Your task to perform on an android device: Add "razer thresher" to the cart on amazon.com Image 0: 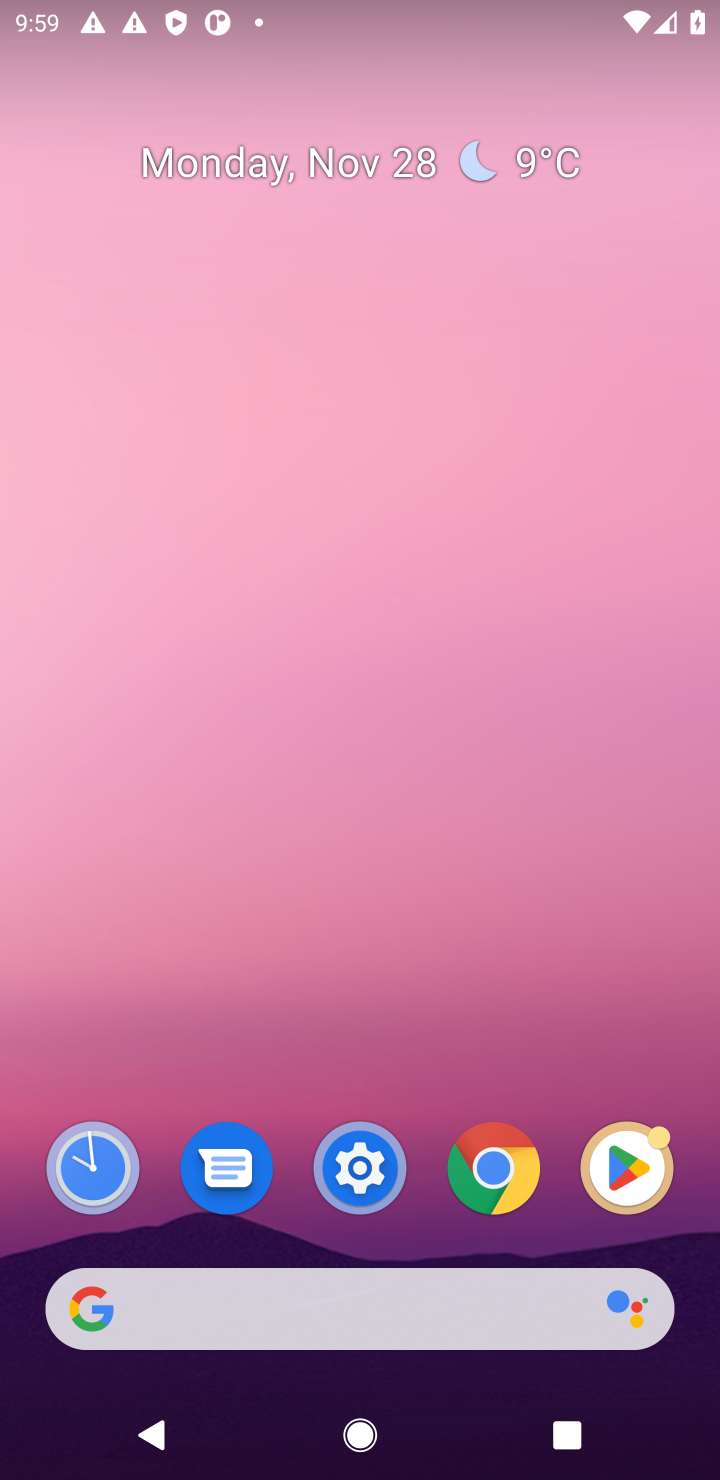
Step 0: click (515, 1285)
Your task to perform on an android device: Add "razer thresher" to the cart on amazon.com Image 1: 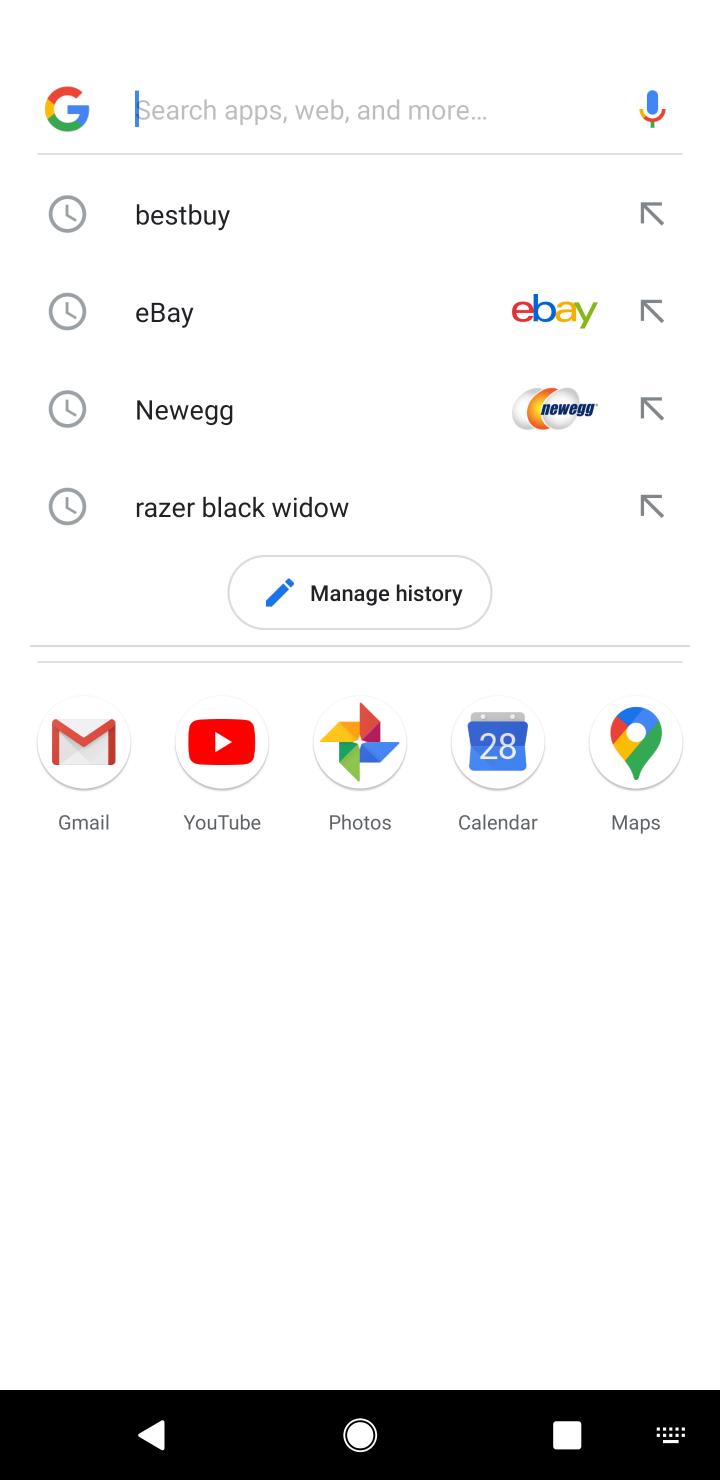
Step 1: type "amaazon.com"
Your task to perform on an android device: Add "razer thresher" to the cart on amazon.com Image 2: 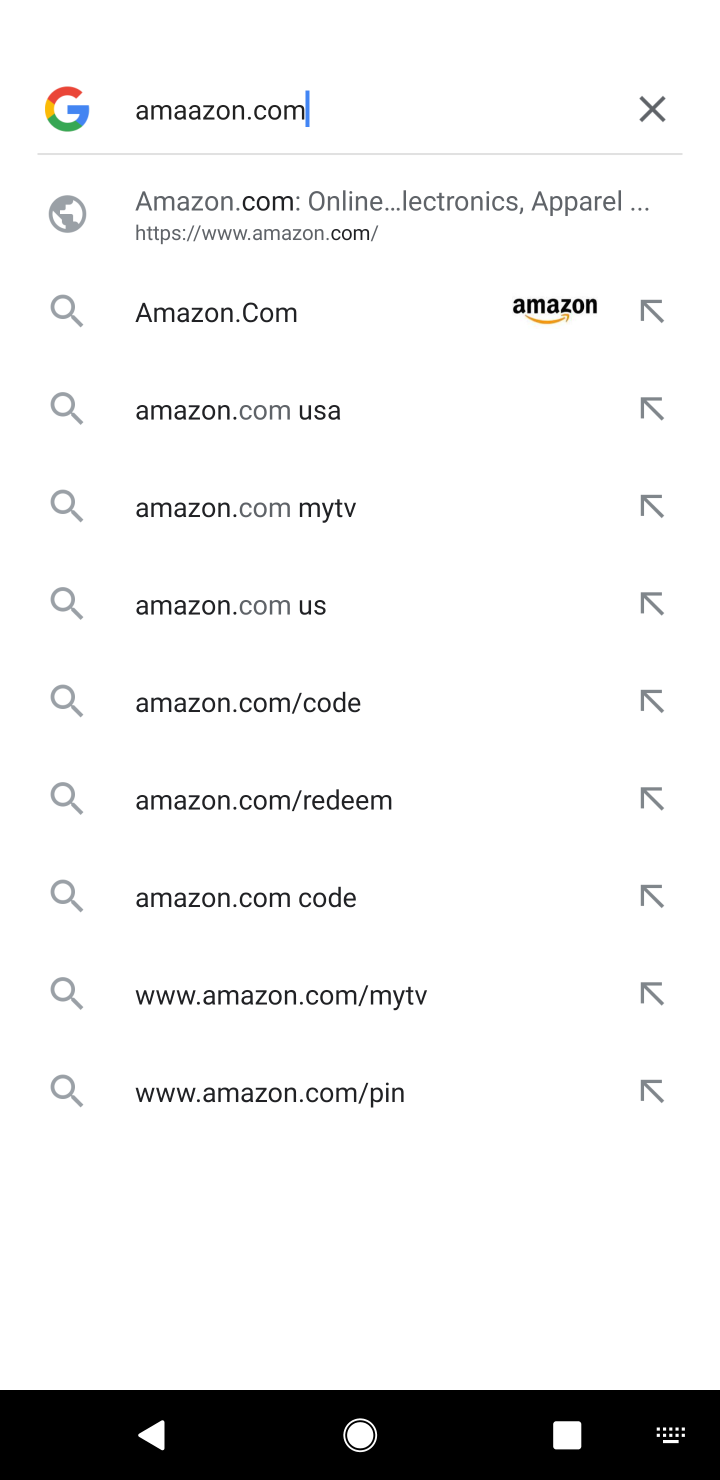
Step 2: click (330, 246)
Your task to perform on an android device: Add "razer thresher" to the cart on amazon.com Image 3: 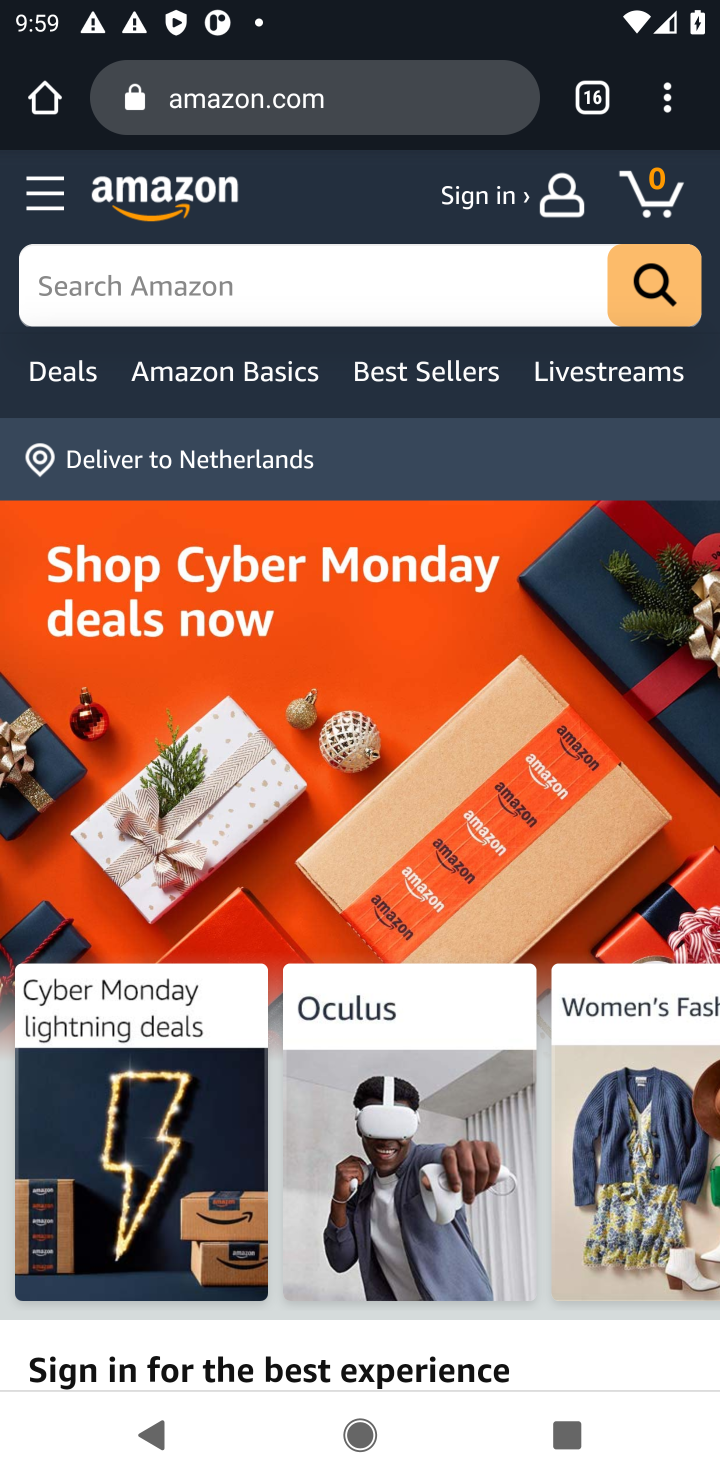
Step 3: click (353, 309)
Your task to perform on an android device: Add "razer thresher" to the cart on amazon.com Image 4: 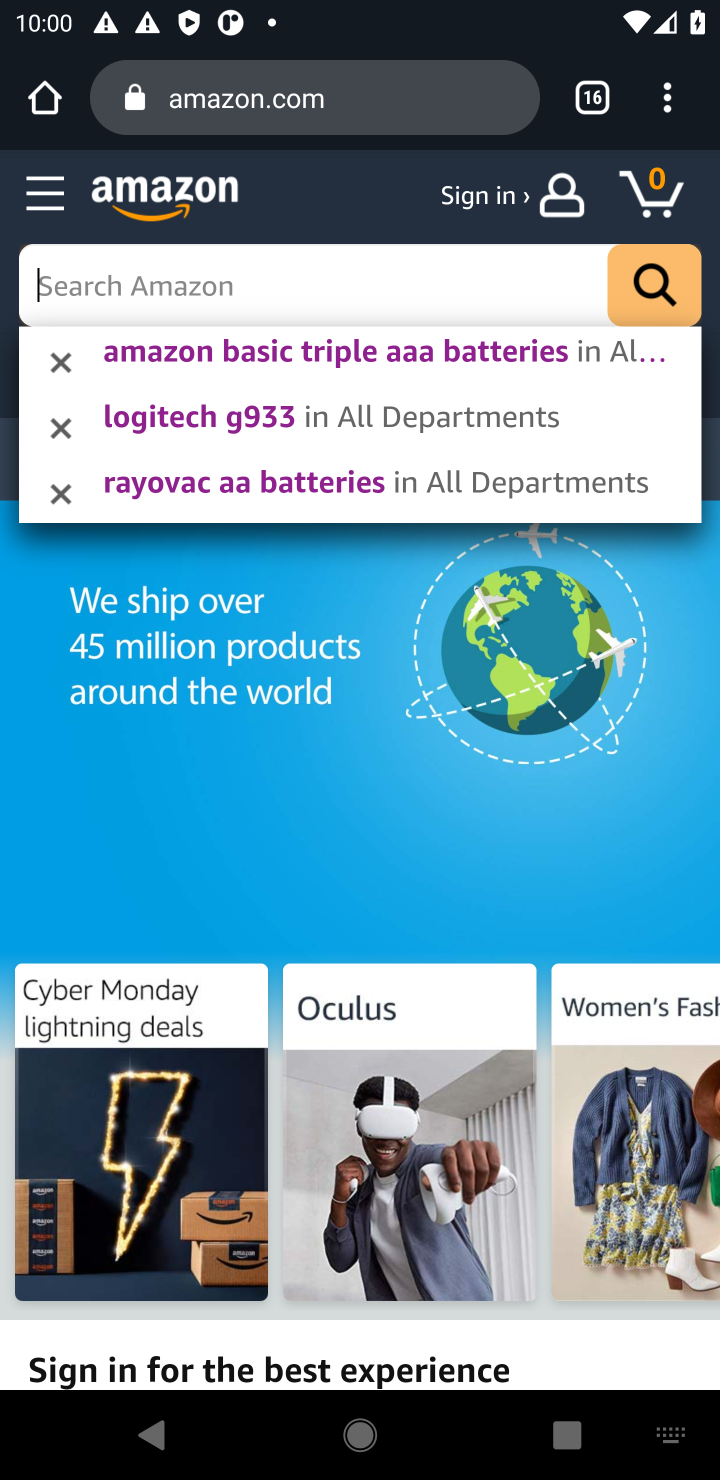
Step 4: type "razer thresher"
Your task to perform on an android device: Add "razer thresher" to the cart on amazon.com Image 5: 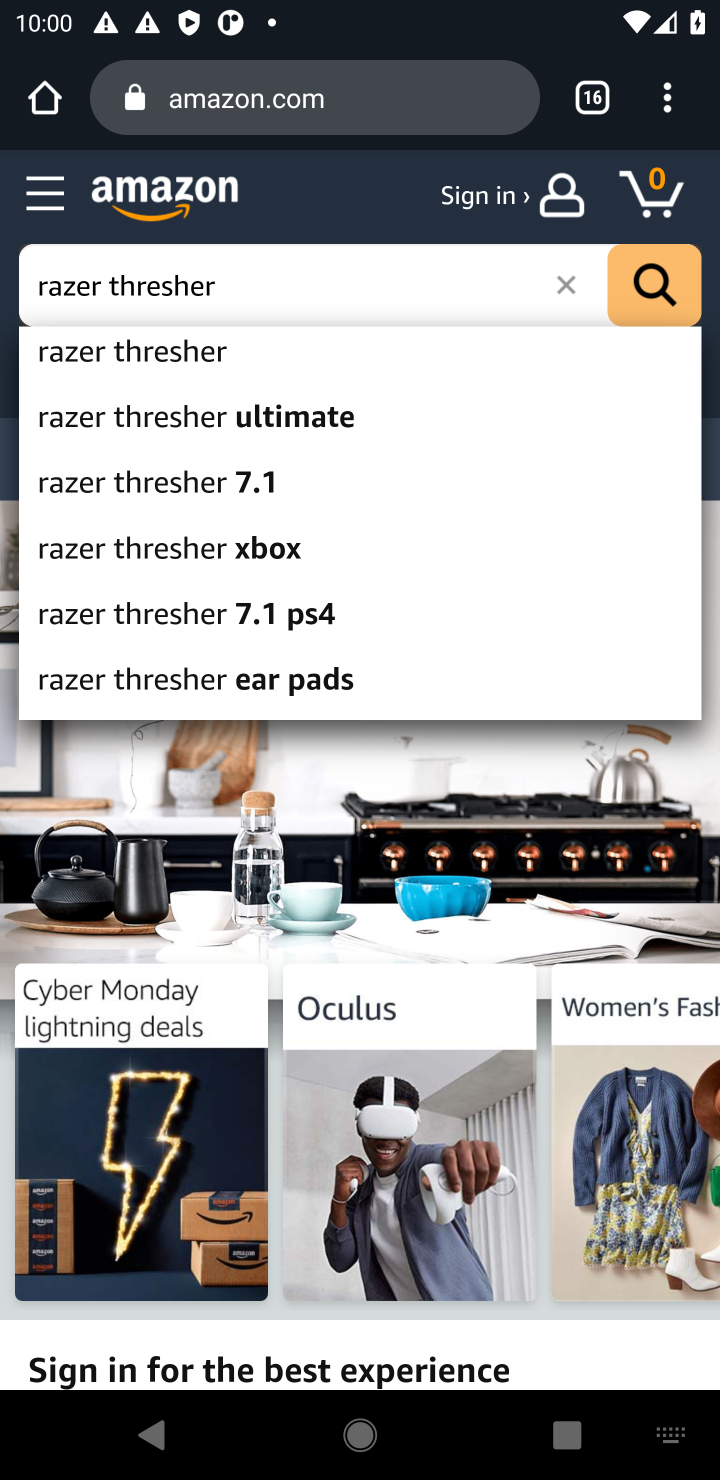
Step 5: click (240, 378)
Your task to perform on an android device: Add "razer thresher" to the cart on amazon.com Image 6: 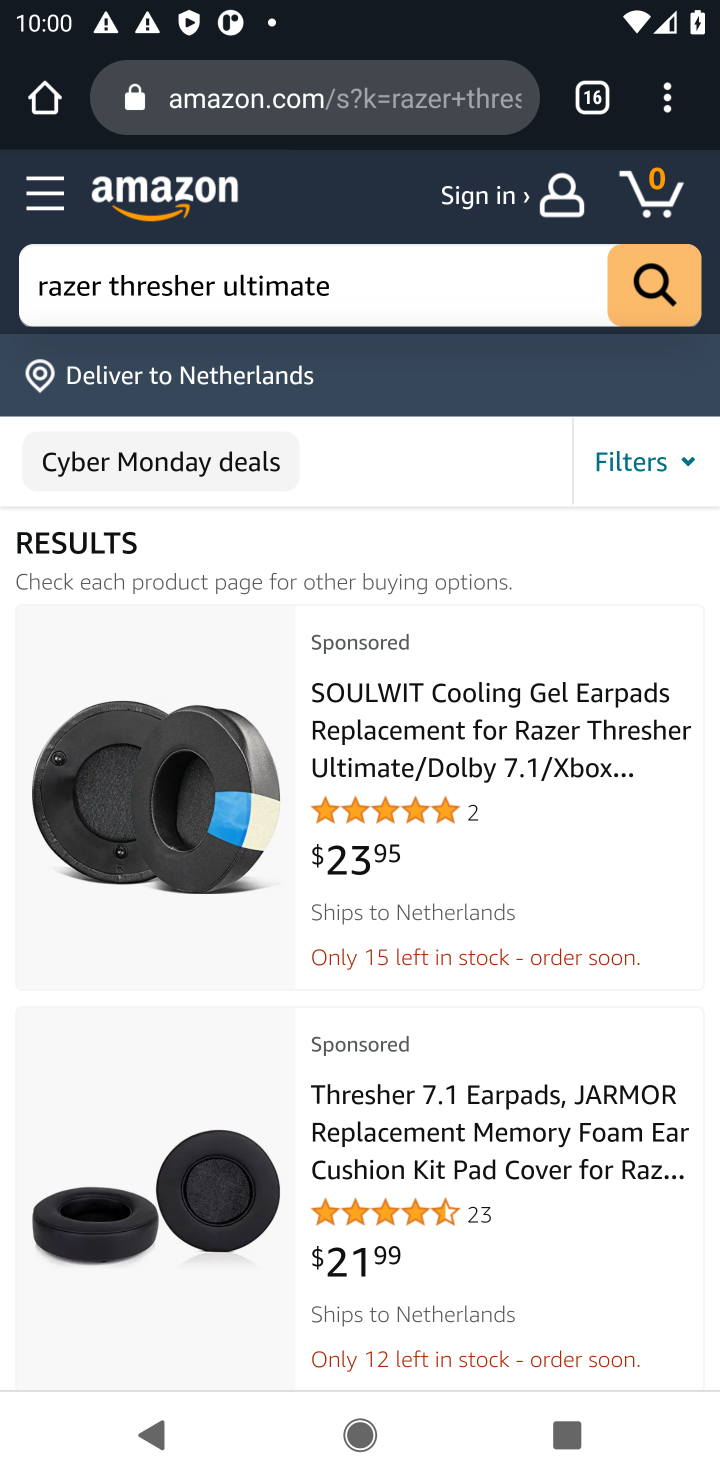
Step 6: click (382, 712)
Your task to perform on an android device: Add "razer thresher" to the cart on amazon.com Image 7: 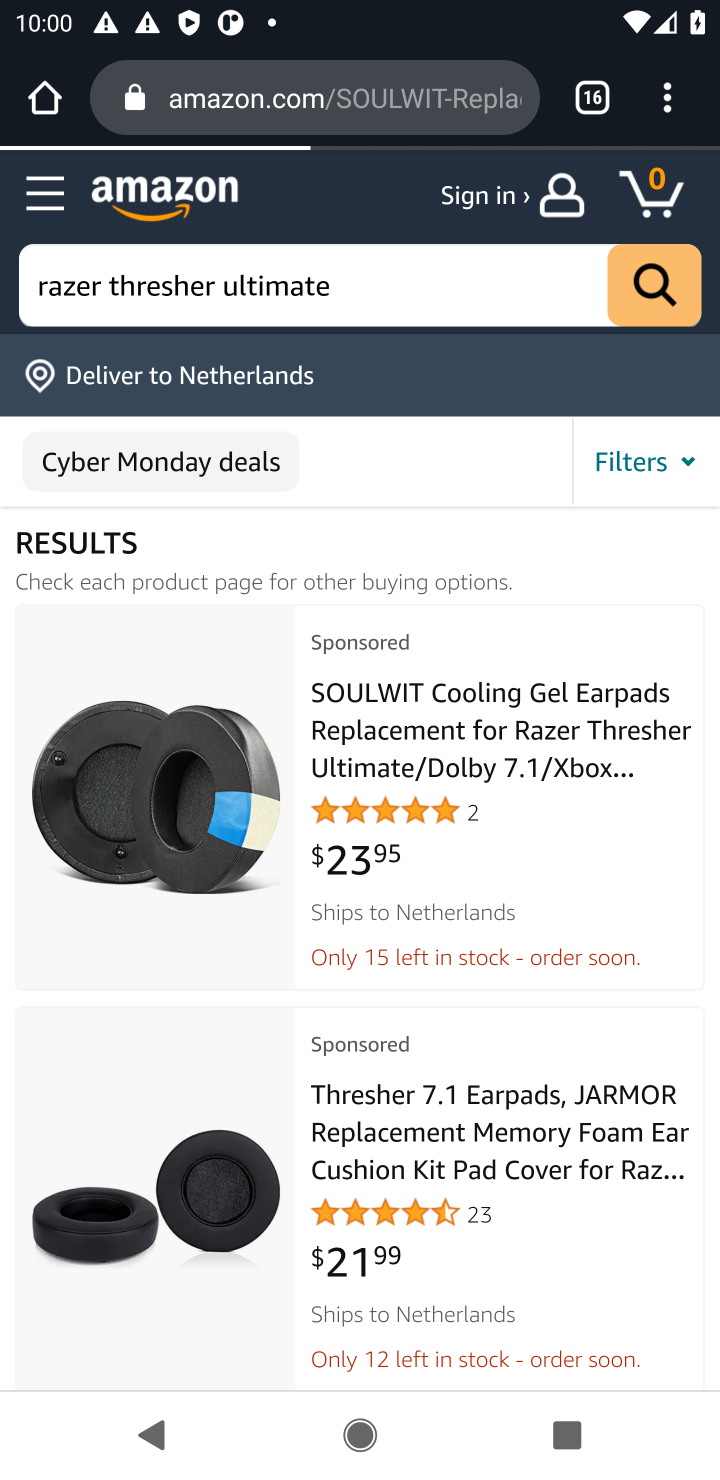
Step 7: task complete